Your task to perform on an android device: Set the phone to "Do not disturb". Image 0: 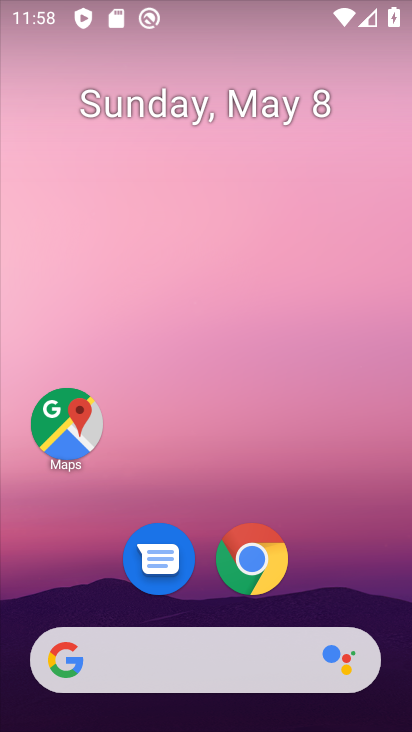
Step 0: drag from (343, 549) to (337, 50)
Your task to perform on an android device: Set the phone to "Do not disturb". Image 1: 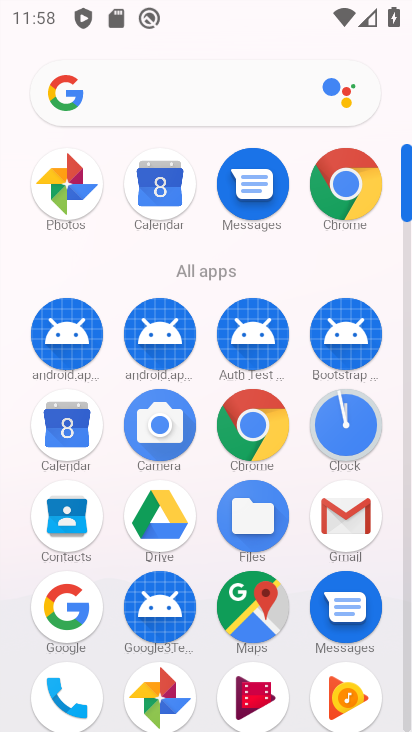
Step 1: drag from (196, 37) to (200, 519)
Your task to perform on an android device: Set the phone to "Do not disturb". Image 2: 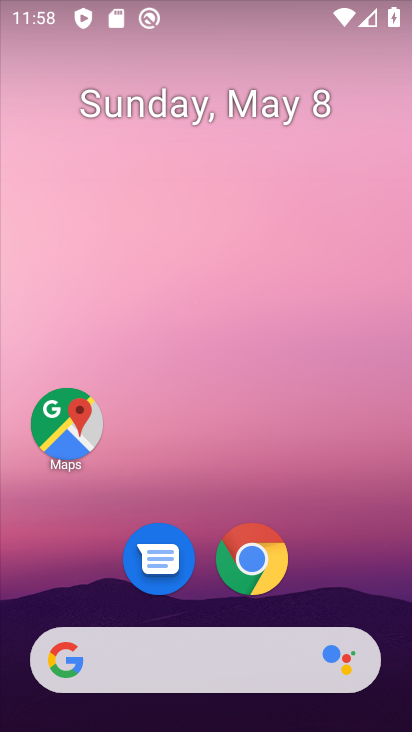
Step 2: drag from (213, 0) to (219, 541)
Your task to perform on an android device: Set the phone to "Do not disturb". Image 3: 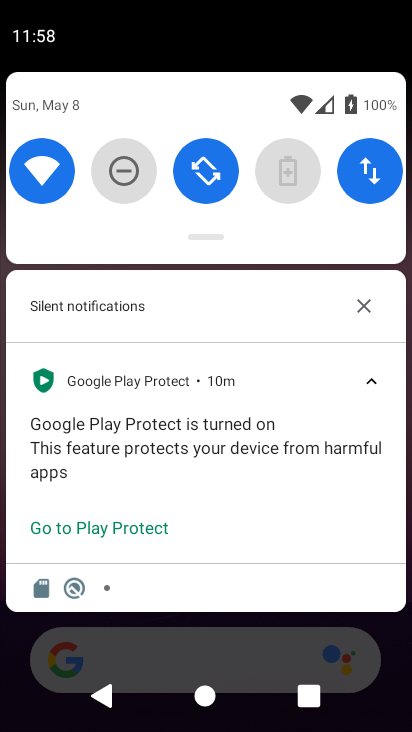
Step 3: click (127, 181)
Your task to perform on an android device: Set the phone to "Do not disturb". Image 4: 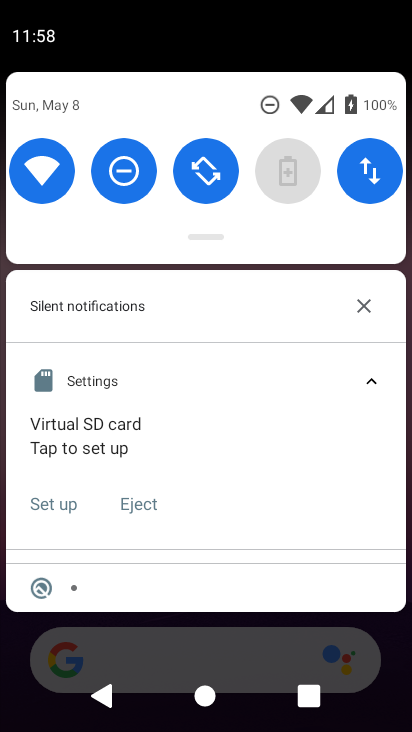
Step 4: task complete